Your task to perform on an android device: change timer sound Image 0: 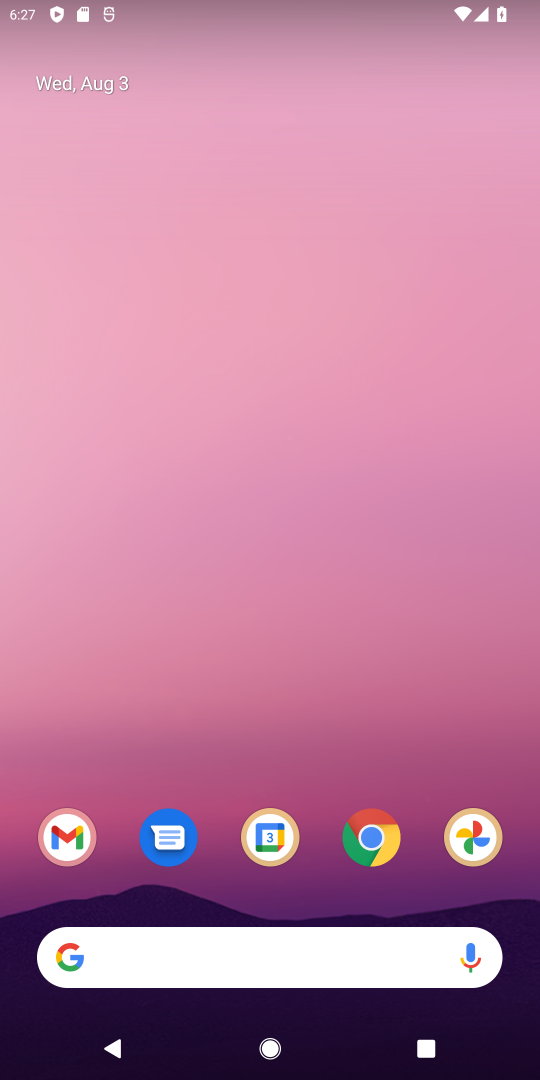
Step 0: drag from (289, 649) to (242, 16)
Your task to perform on an android device: change timer sound Image 1: 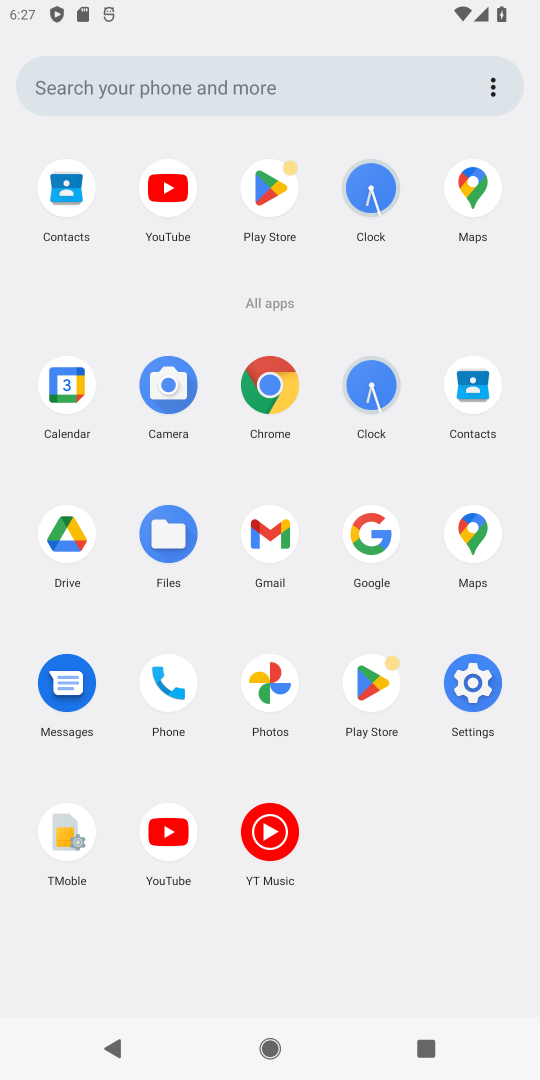
Step 1: click (363, 369)
Your task to perform on an android device: change timer sound Image 2: 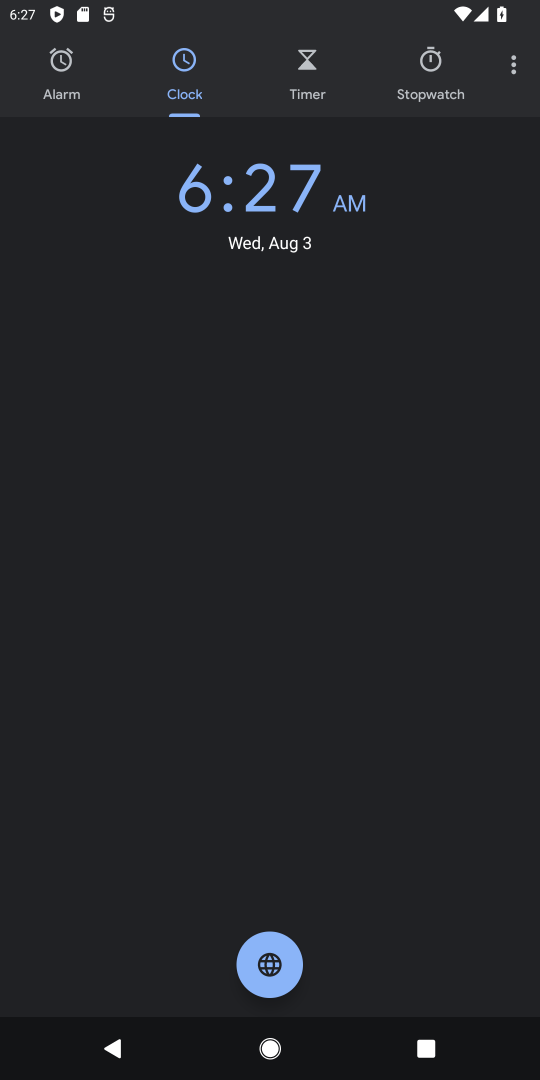
Step 2: click (523, 73)
Your task to perform on an android device: change timer sound Image 3: 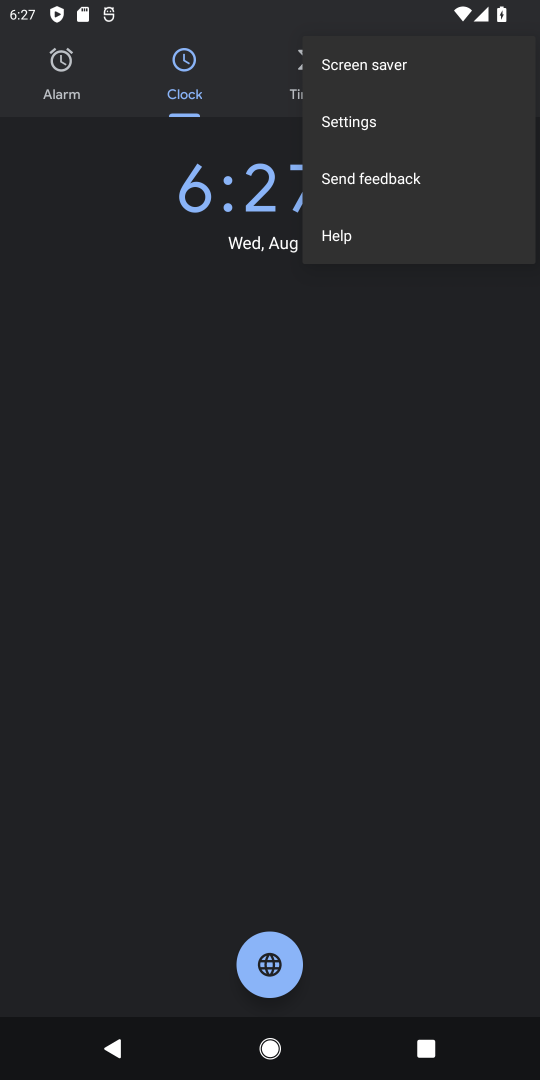
Step 3: click (360, 128)
Your task to perform on an android device: change timer sound Image 4: 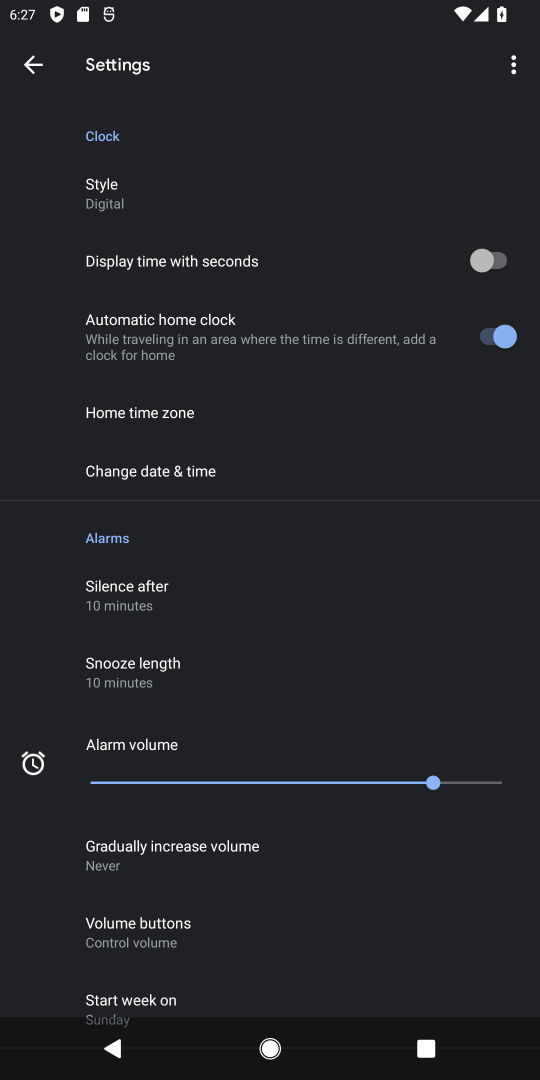
Step 4: drag from (313, 949) to (279, 265)
Your task to perform on an android device: change timer sound Image 5: 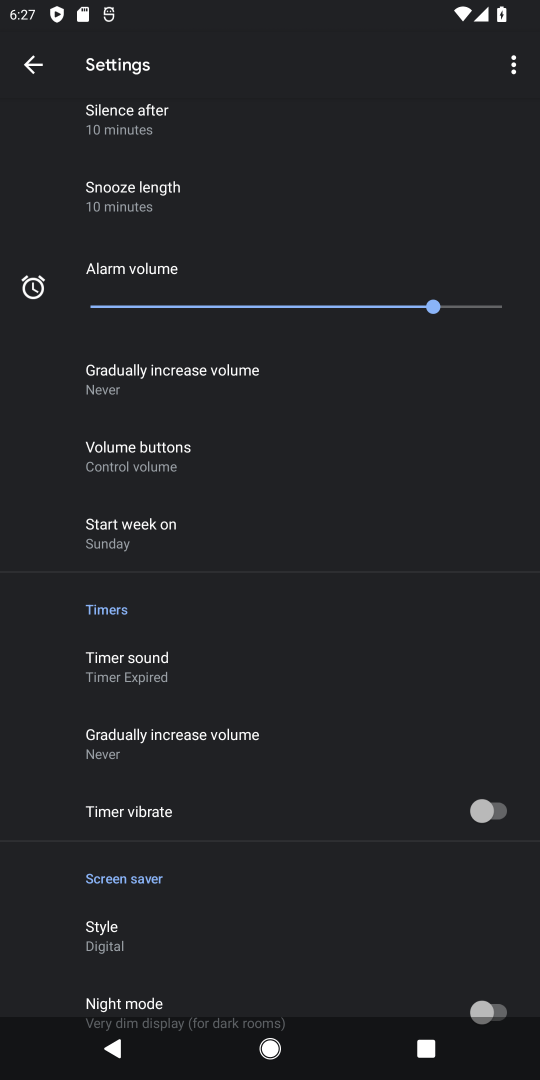
Step 5: drag from (260, 885) to (237, 721)
Your task to perform on an android device: change timer sound Image 6: 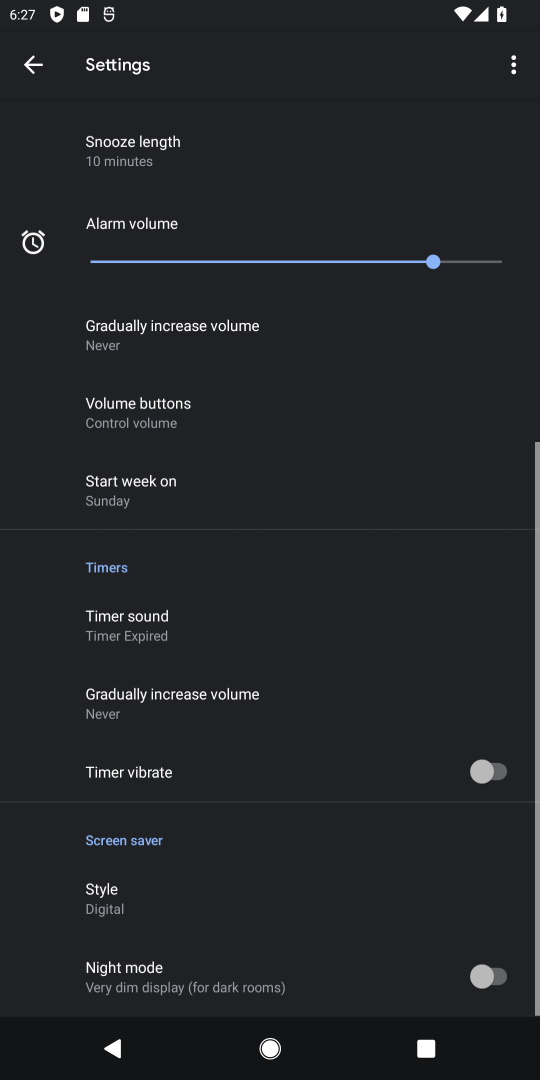
Step 6: click (97, 617)
Your task to perform on an android device: change timer sound Image 7: 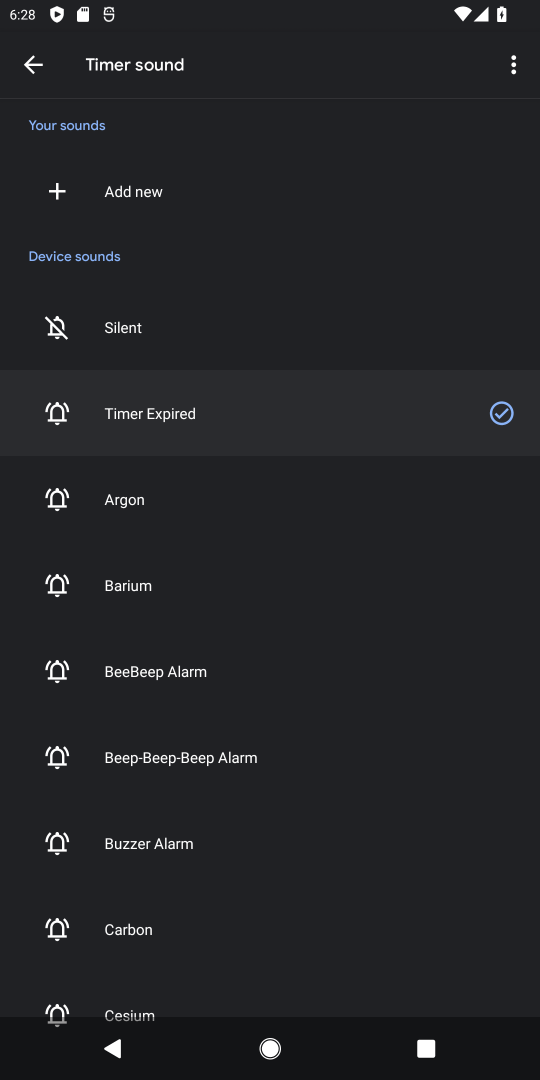
Step 7: click (218, 498)
Your task to perform on an android device: change timer sound Image 8: 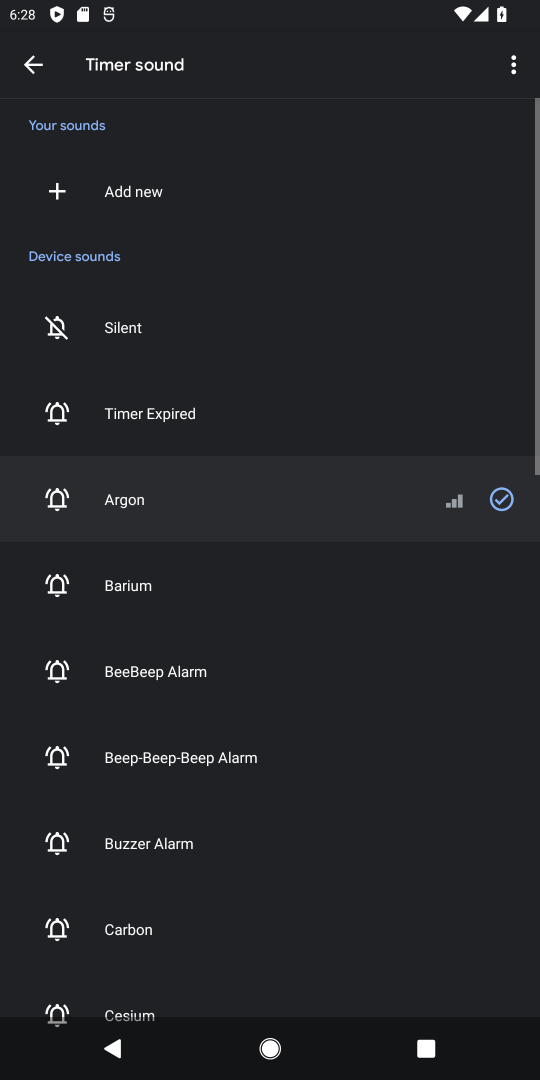
Step 8: task complete